Your task to perform on an android device: see sites visited before in the chrome app Image 0: 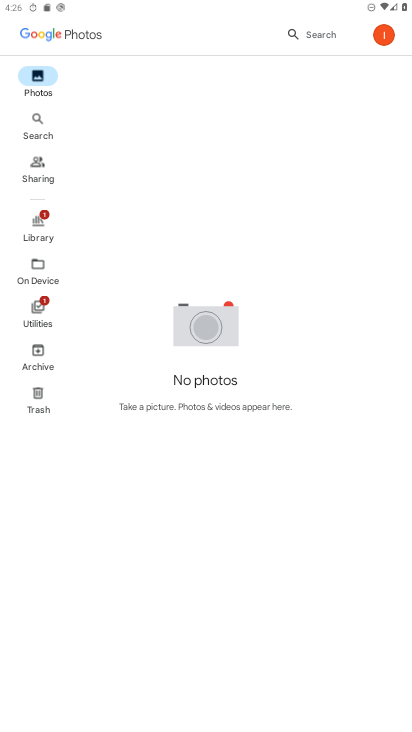
Step 0: press home button
Your task to perform on an android device: see sites visited before in the chrome app Image 1: 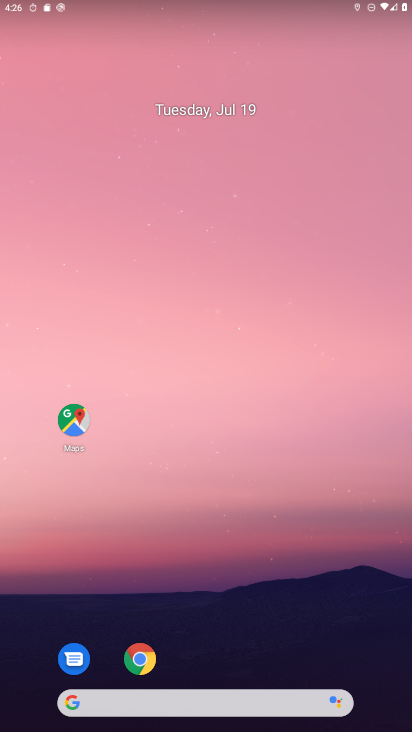
Step 1: drag from (348, 538) to (411, 599)
Your task to perform on an android device: see sites visited before in the chrome app Image 2: 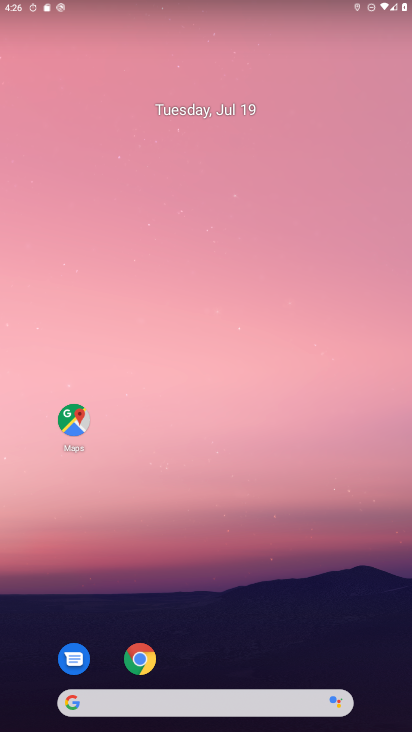
Step 2: drag from (220, 705) to (287, 9)
Your task to perform on an android device: see sites visited before in the chrome app Image 3: 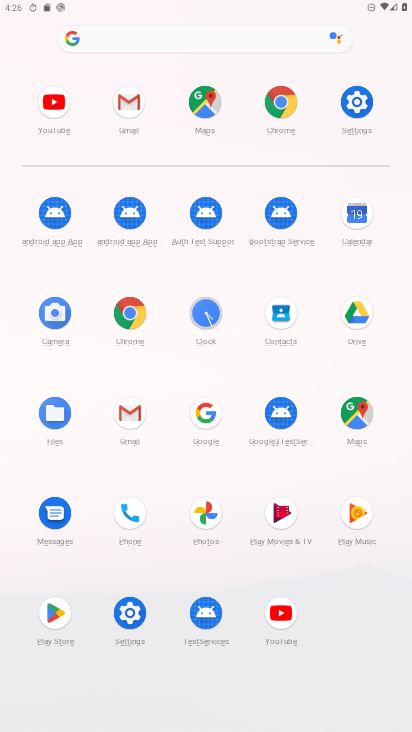
Step 3: click (285, 100)
Your task to perform on an android device: see sites visited before in the chrome app Image 4: 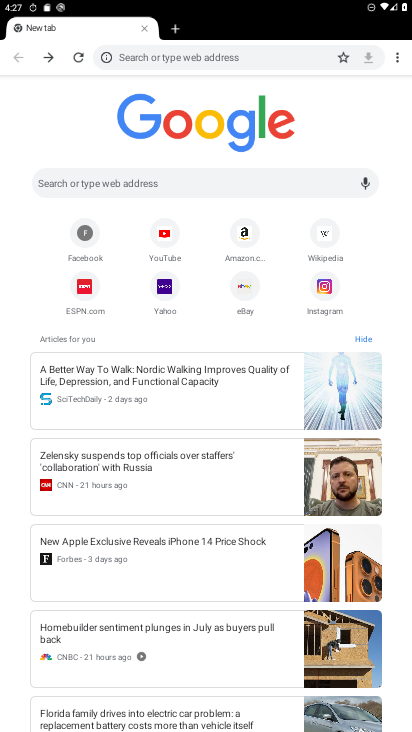
Step 4: drag from (391, 52) to (293, 147)
Your task to perform on an android device: see sites visited before in the chrome app Image 5: 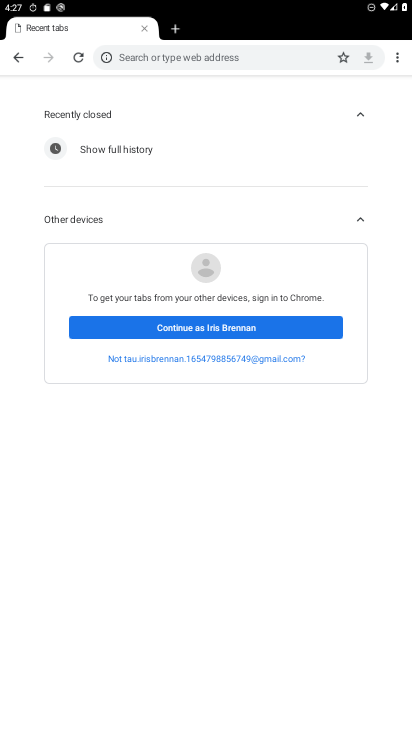
Step 5: click (238, 334)
Your task to perform on an android device: see sites visited before in the chrome app Image 6: 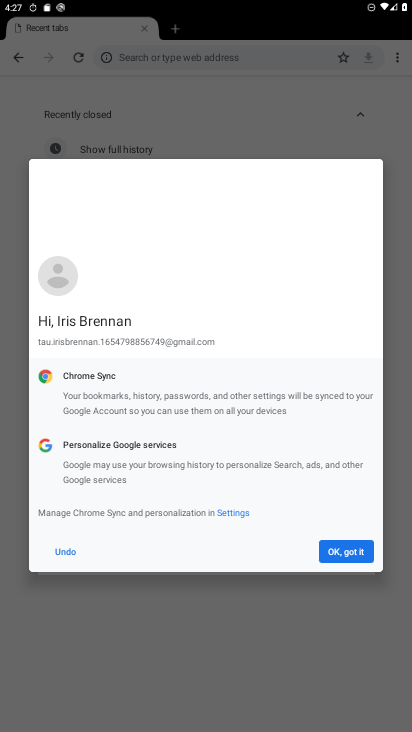
Step 6: click (352, 554)
Your task to perform on an android device: see sites visited before in the chrome app Image 7: 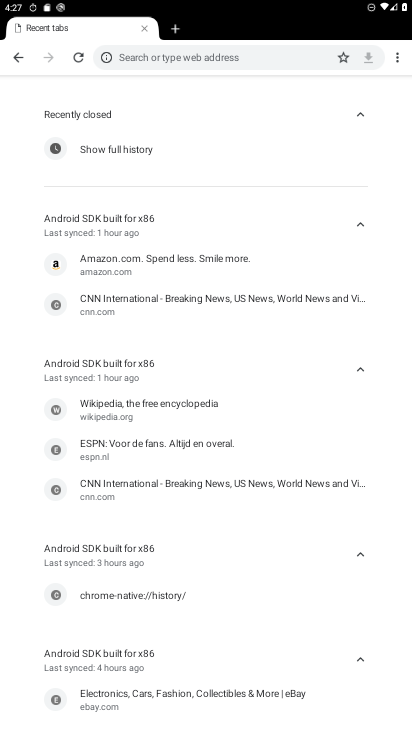
Step 7: task complete